Your task to perform on an android device: Open Youtube and go to "Your channel" Image 0: 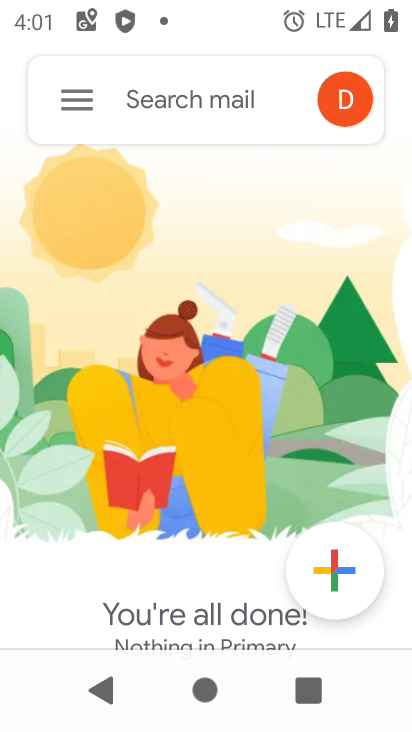
Step 0: press home button
Your task to perform on an android device: Open Youtube and go to "Your channel" Image 1: 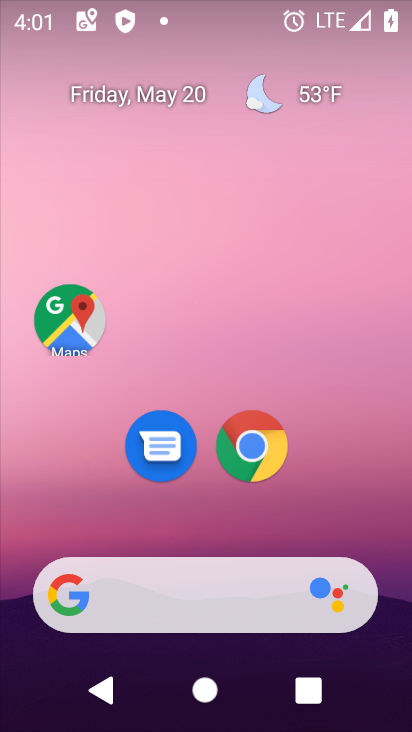
Step 1: drag from (383, 503) to (403, 143)
Your task to perform on an android device: Open Youtube and go to "Your channel" Image 2: 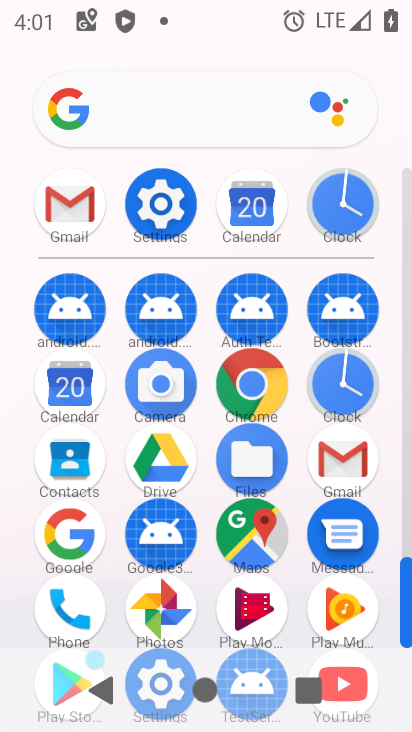
Step 2: drag from (376, 596) to (410, 345)
Your task to perform on an android device: Open Youtube and go to "Your channel" Image 3: 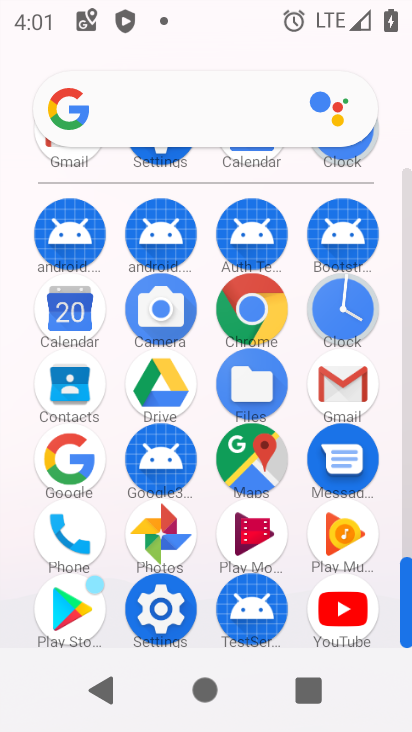
Step 3: click (328, 619)
Your task to perform on an android device: Open Youtube and go to "Your channel" Image 4: 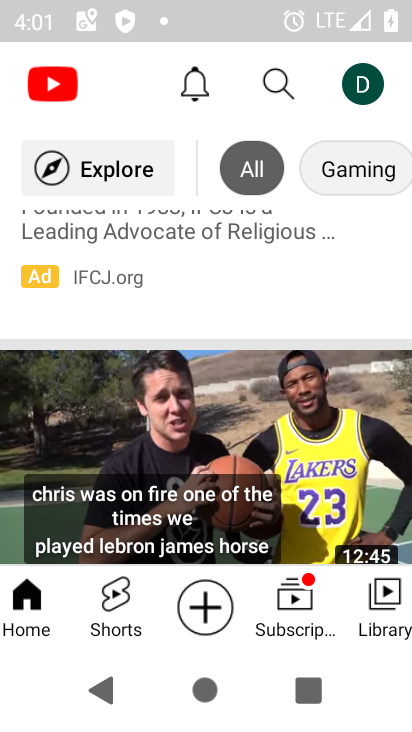
Step 4: click (358, 87)
Your task to perform on an android device: Open Youtube and go to "Your channel" Image 5: 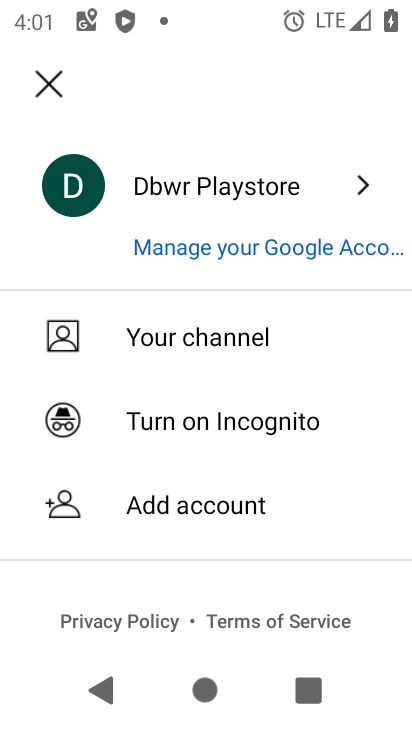
Step 5: click (195, 362)
Your task to perform on an android device: Open Youtube and go to "Your channel" Image 6: 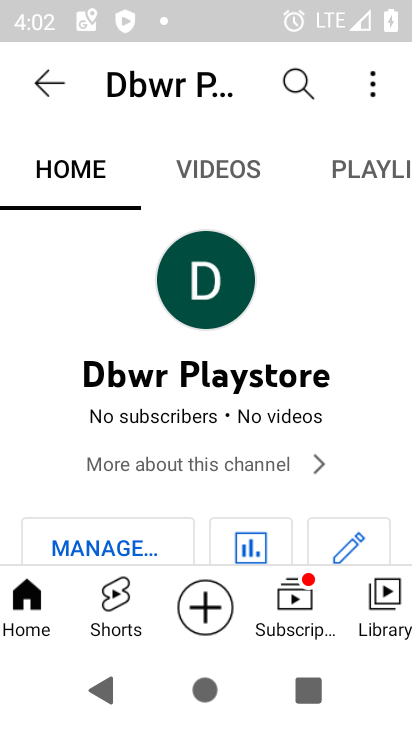
Step 6: task complete